Your task to perform on an android device: open device folders in google photos Image 0: 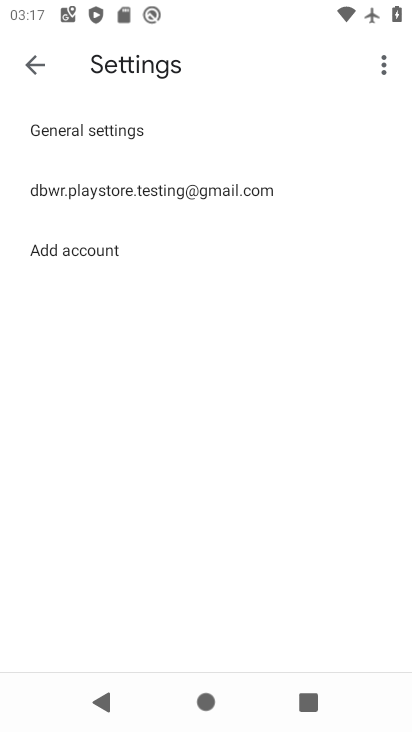
Step 0: click (292, 320)
Your task to perform on an android device: open device folders in google photos Image 1: 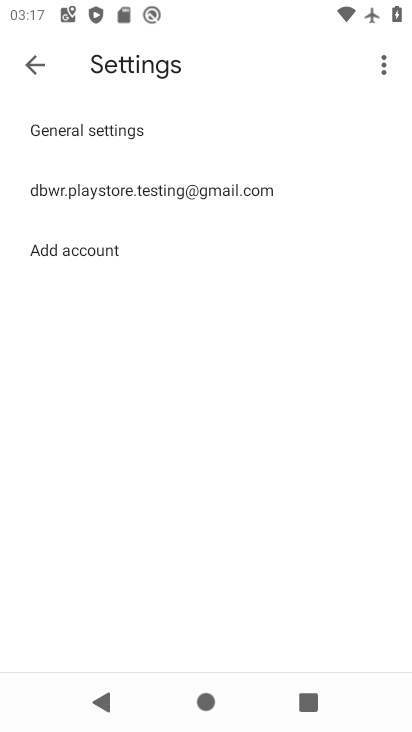
Step 1: press home button
Your task to perform on an android device: open device folders in google photos Image 2: 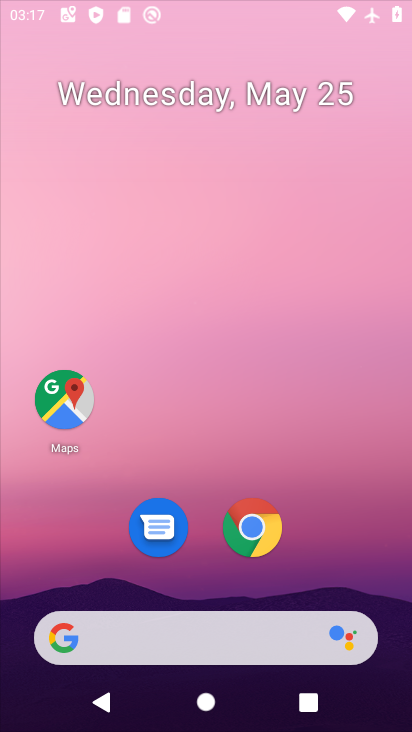
Step 2: drag from (191, 590) to (236, 236)
Your task to perform on an android device: open device folders in google photos Image 3: 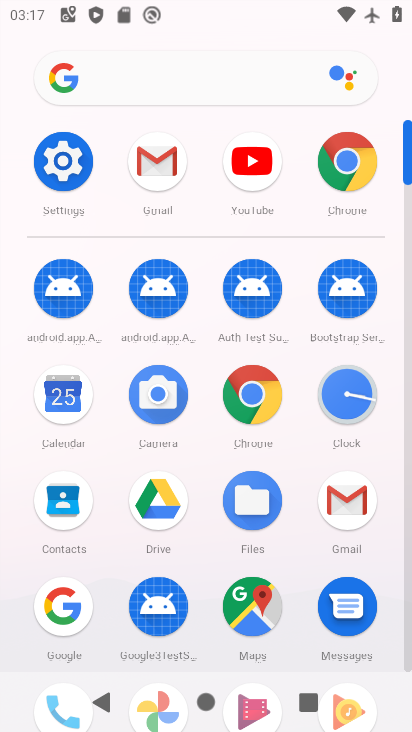
Step 3: drag from (215, 623) to (226, 301)
Your task to perform on an android device: open device folders in google photos Image 4: 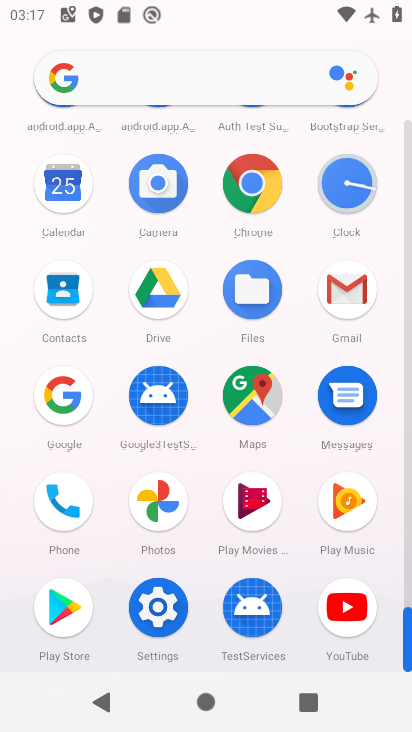
Step 4: click (154, 507)
Your task to perform on an android device: open device folders in google photos Image 5: 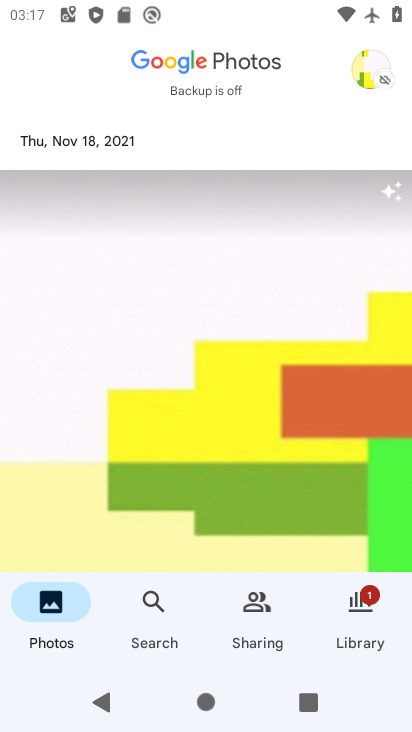
Step 5: click (361, 613)
Your task to perform on an android device: open device folders in google photos Image 6: 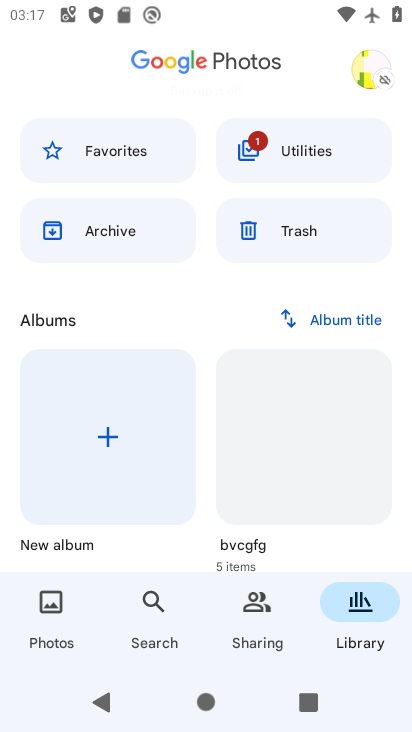
Step 6: task complete